Your task to perform on an android device: Open Yahoo.com Image 0: 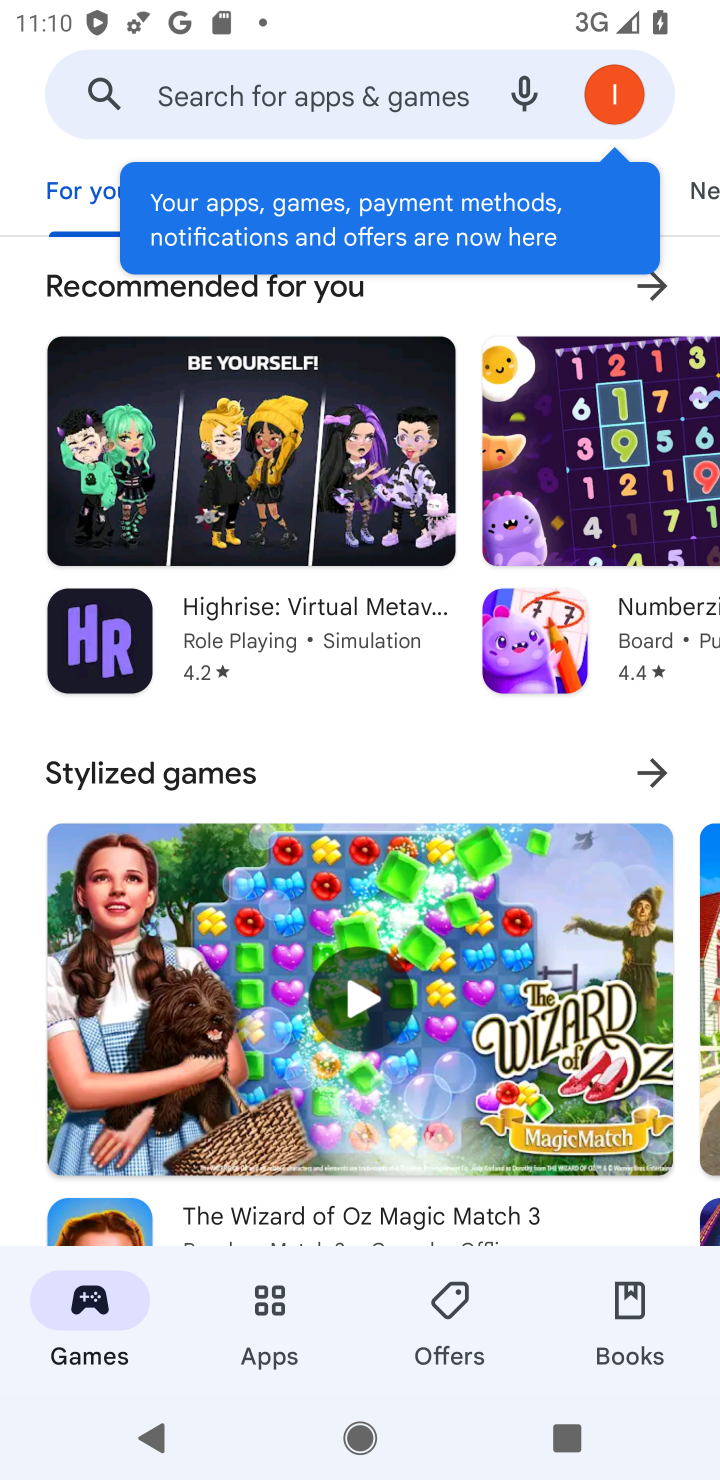
Step 0: press home button
Your task to perform on an android device: Open Yahoo.com Image 1: 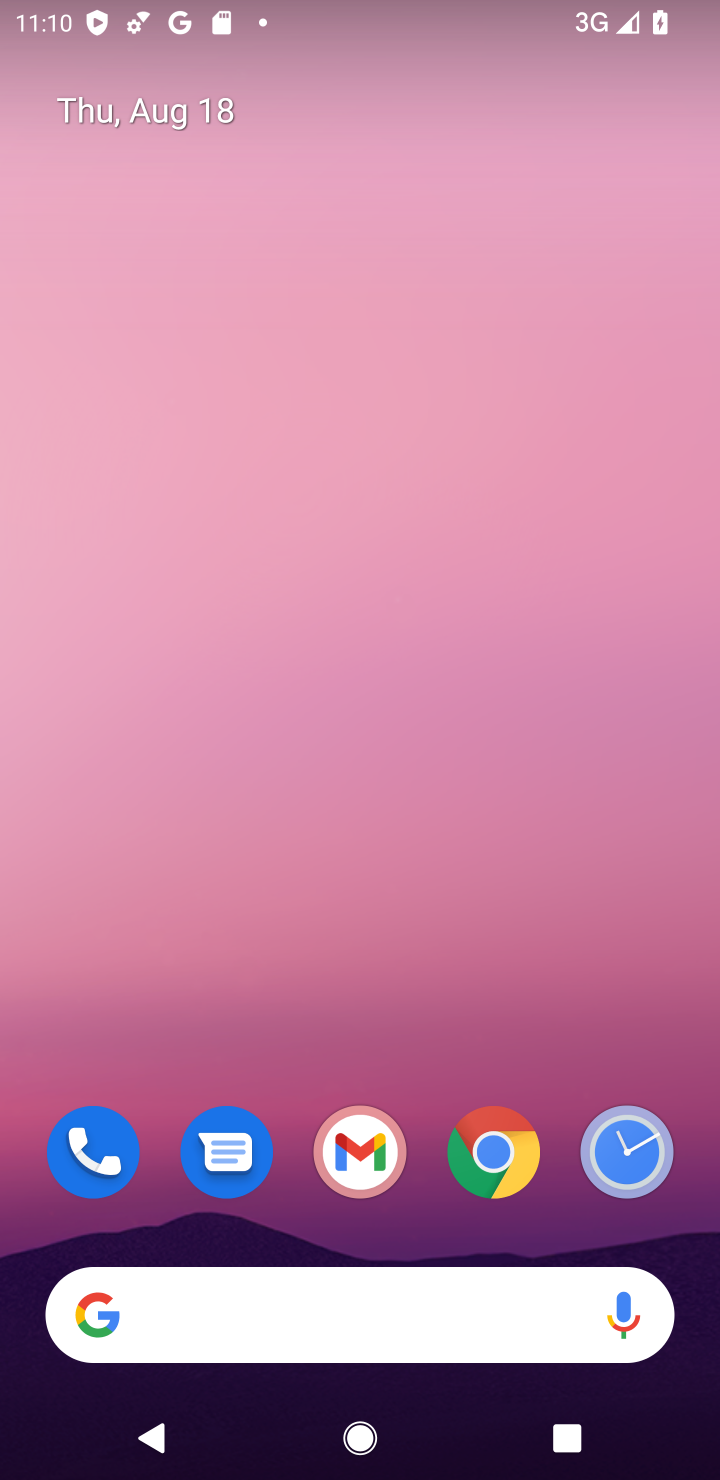
Step 1: click (408, 1322)
Your task to perform on an android device: Open Yahoo.com Image 2: 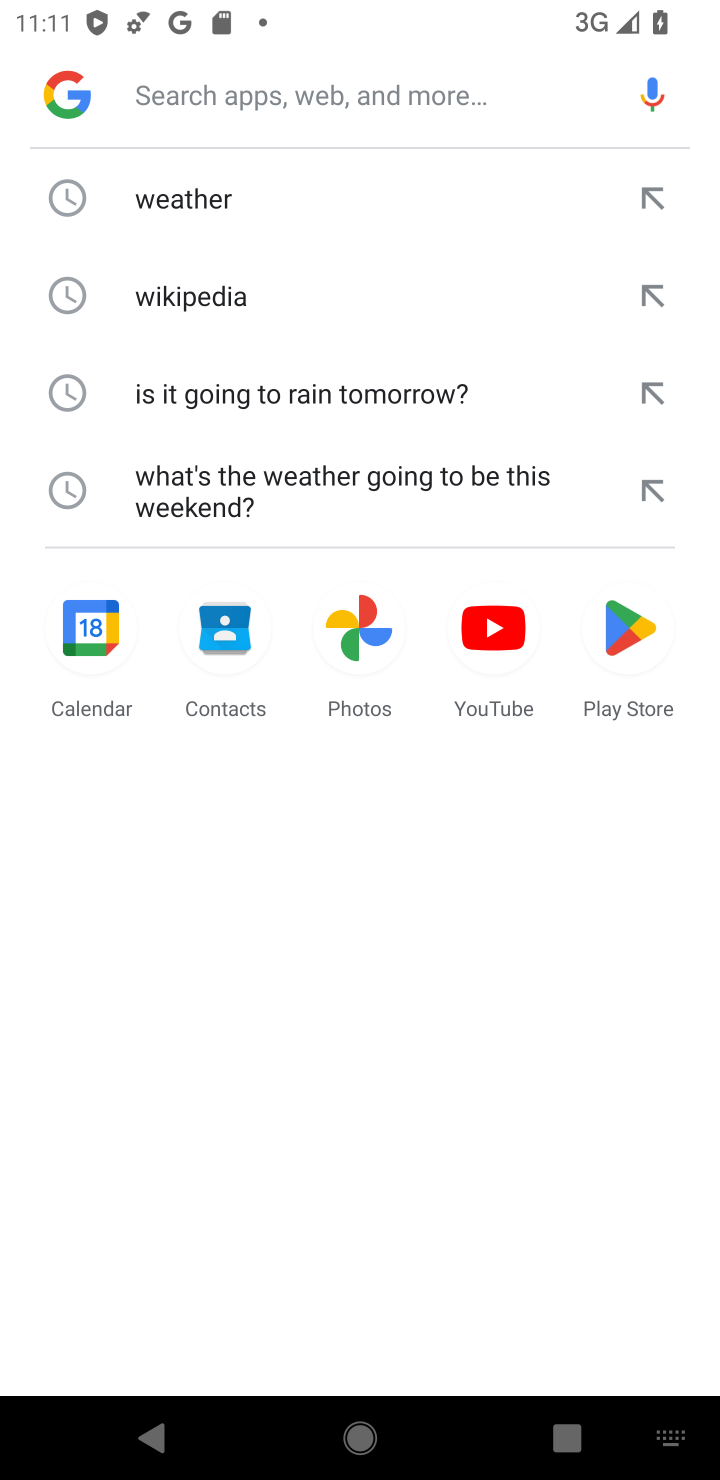
Step 2: type "yahoo.com"
Your task to perform on an android device: Open Yahoo.com Image 3: 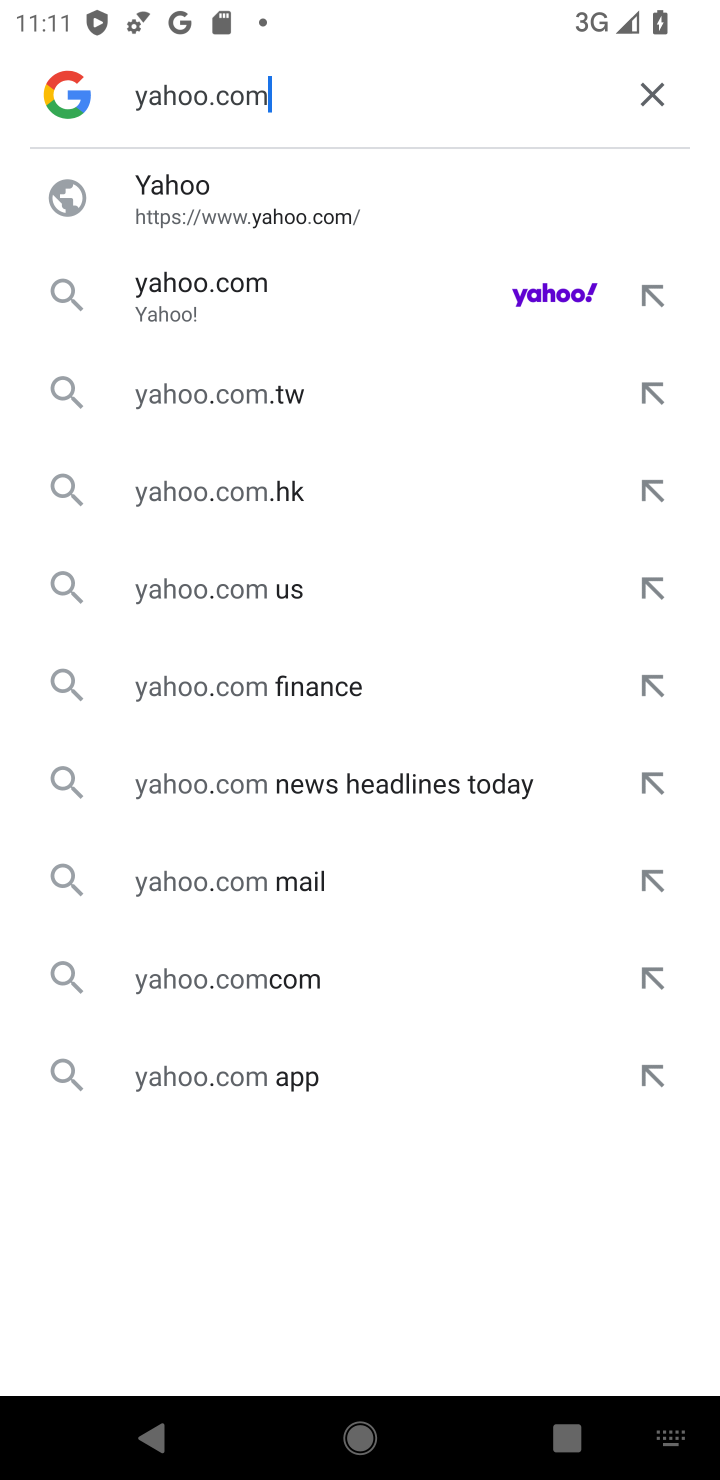
Step 3: click (447, 299)
Your task to perform on an android device: Open Yahoo.com Image 4: 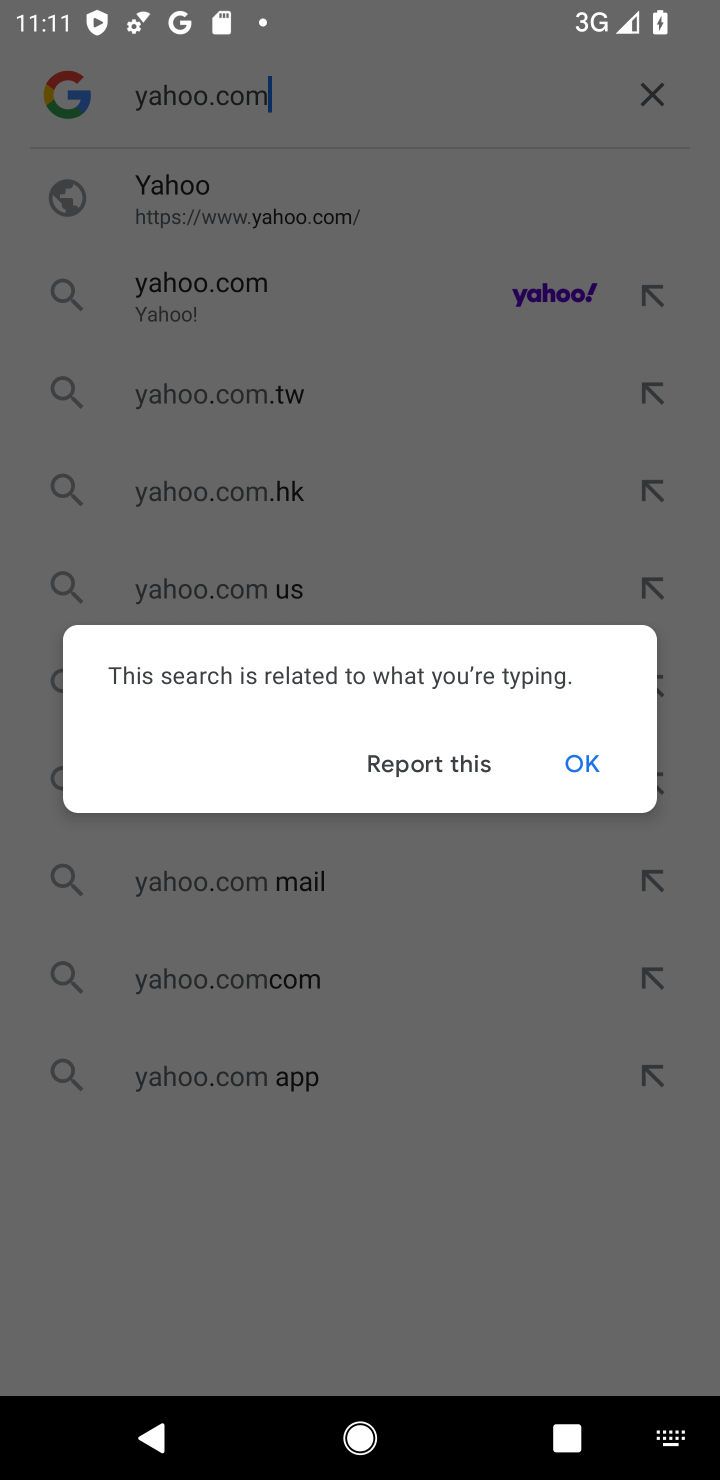
Step 4: click (588, 759)
Your task to perform on an android device: Open Yahoo.com Image 5: 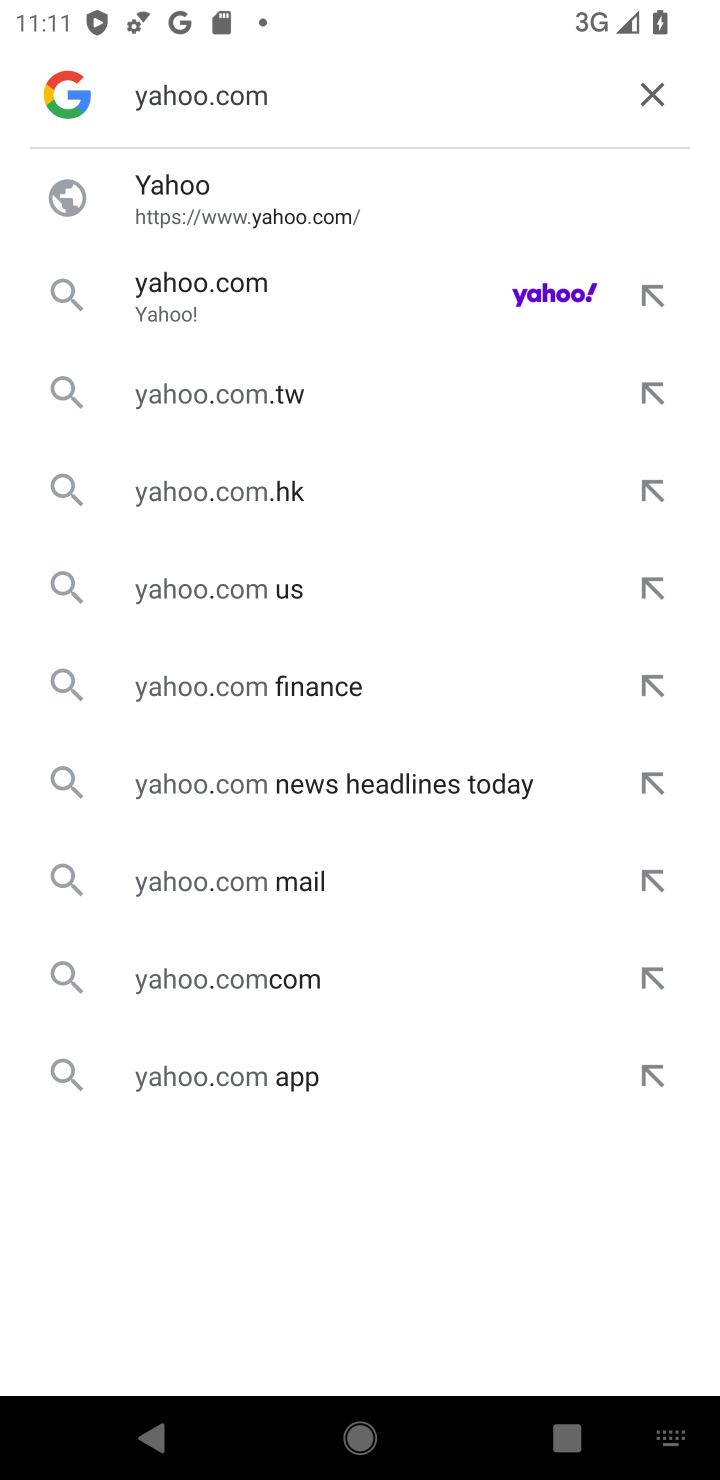
Step 5: click (660, 286)
Your task to perform on an android device: Open Yahoo.com Image 6: 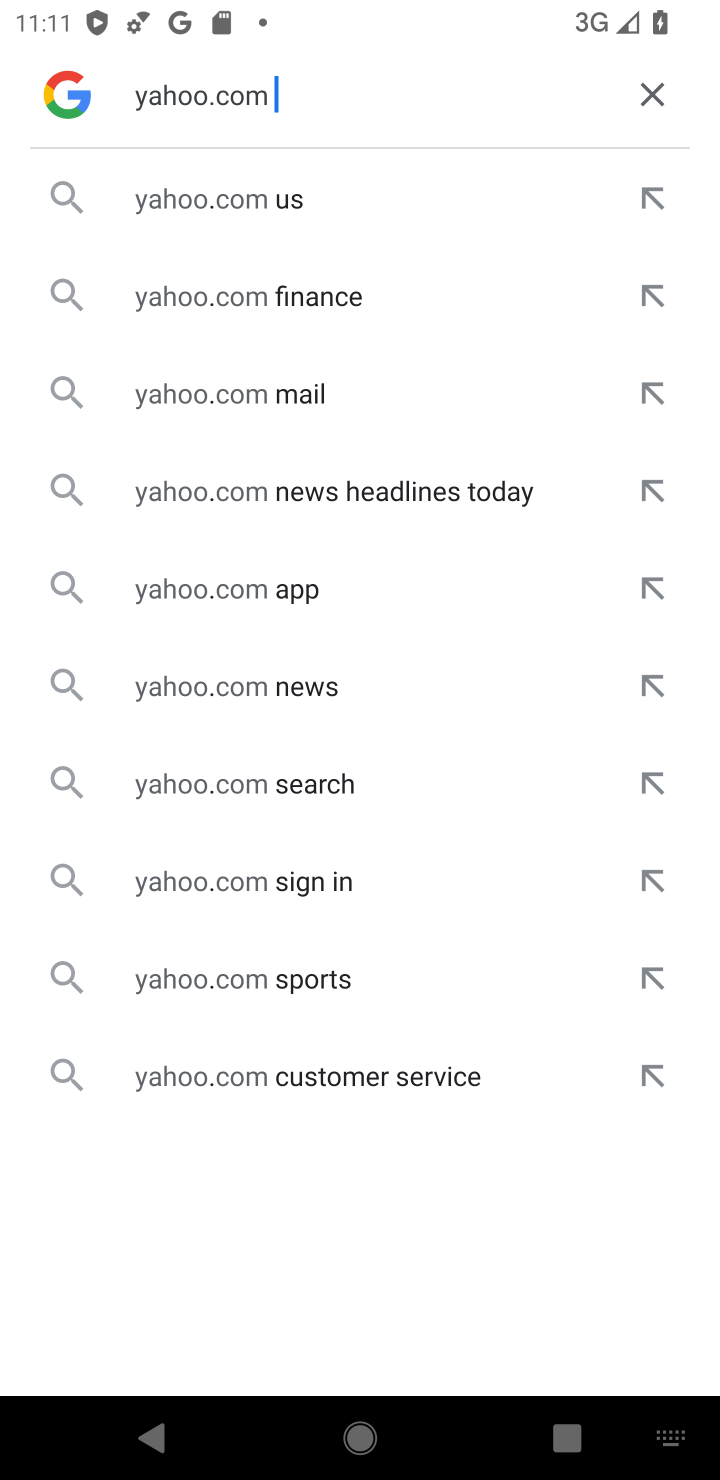
Step 6: click (244, 684)
Your task to perform on an android device: Open Yahoo.com Image 7: 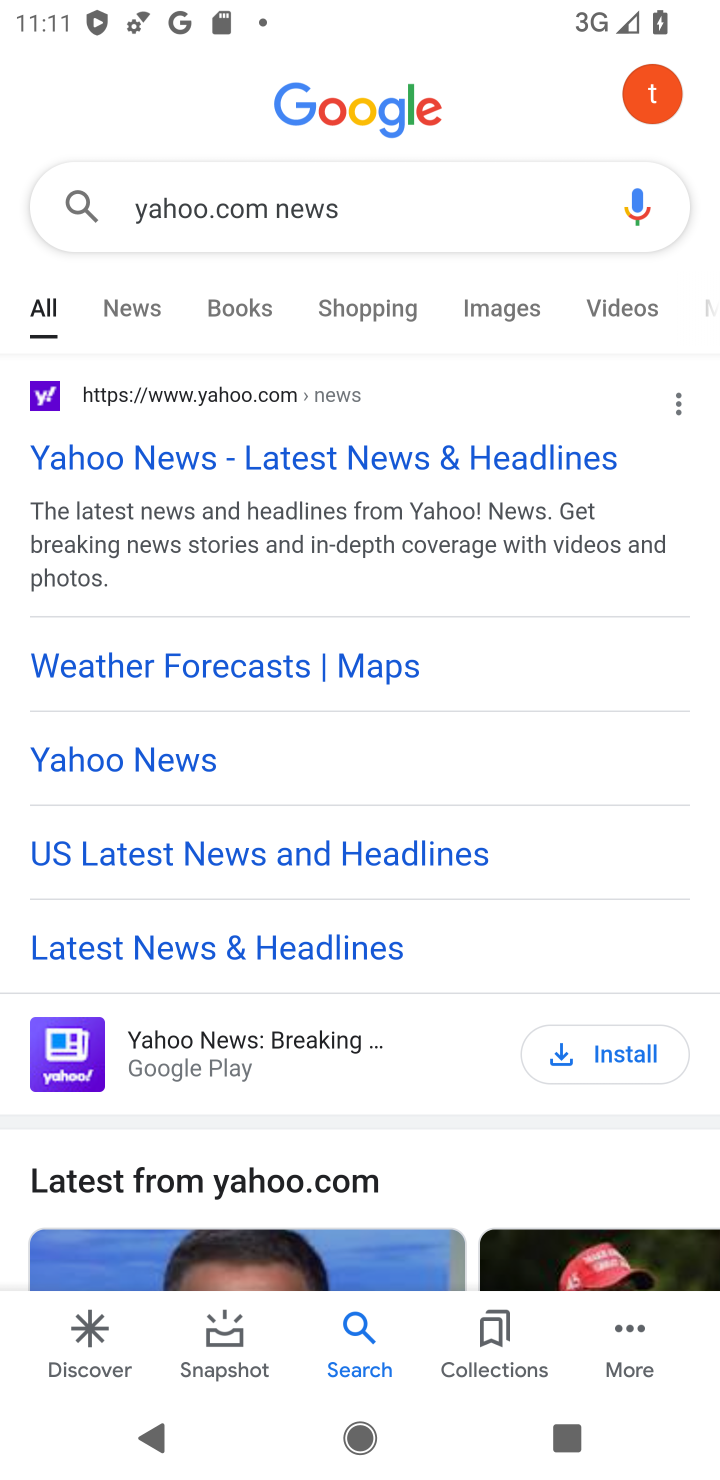
Step 7: click (198, 455)
Your task to perform on an android device: Open Yahoo.com Image 8: 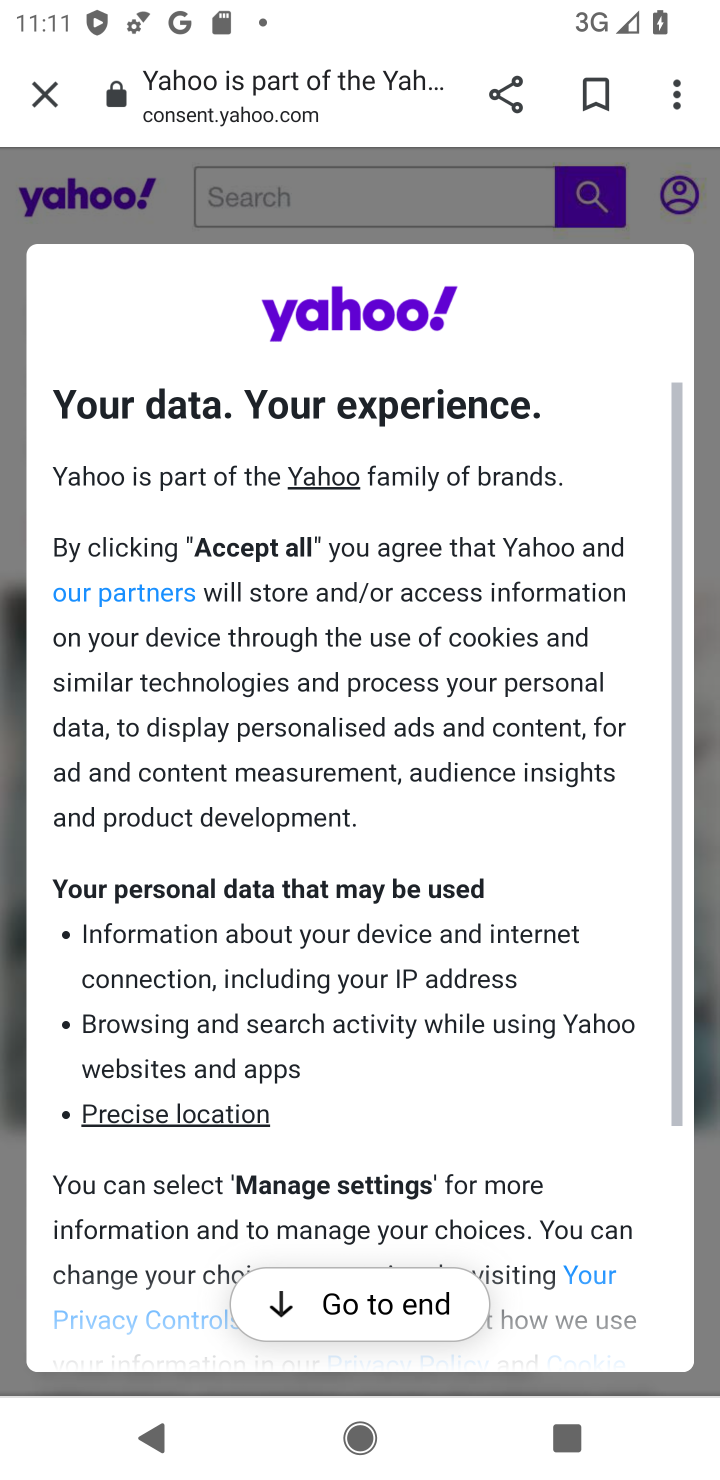
Step 8: click (445, 1306)
Your task to perform on an android device: Open Yahoo.com Image 9: 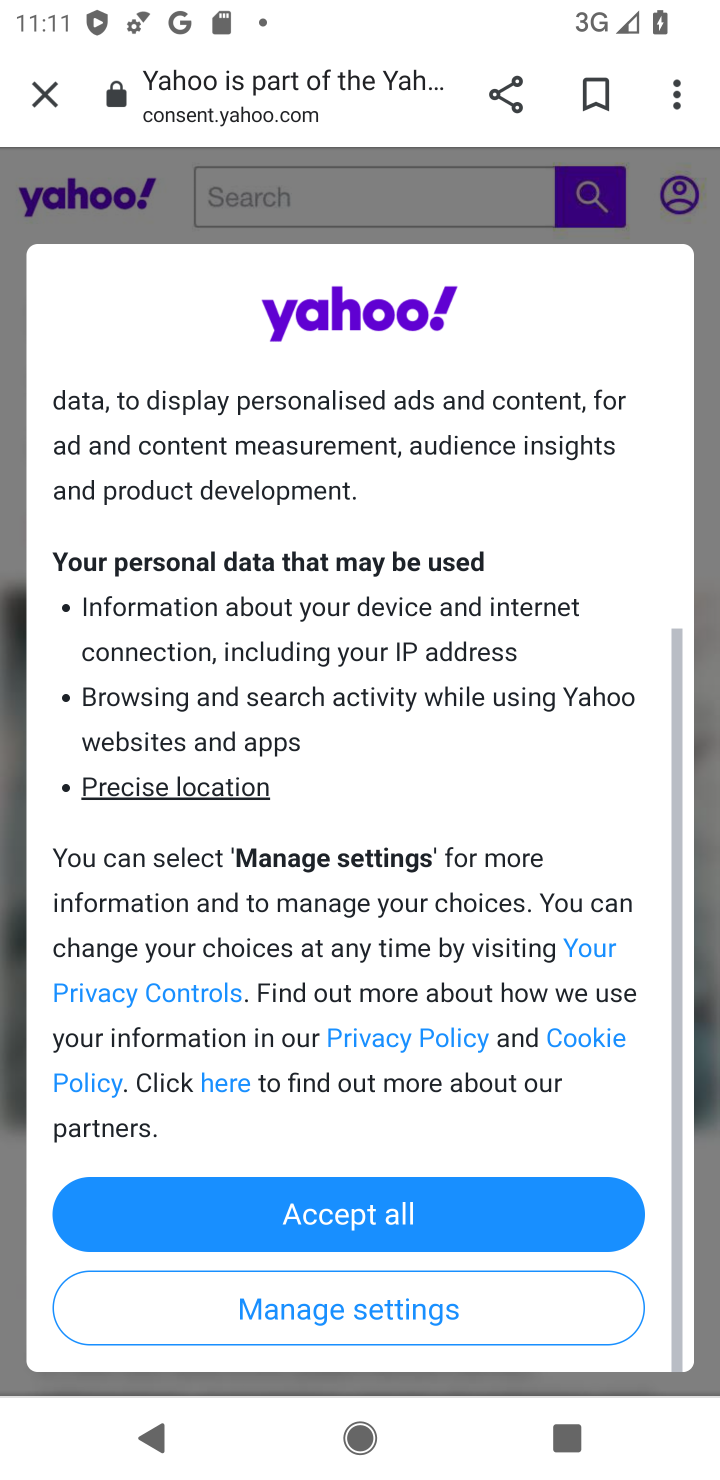
Step 9: click (480, 1211)
Your task to perform on an android device: Open Yahoo.com Image 10: 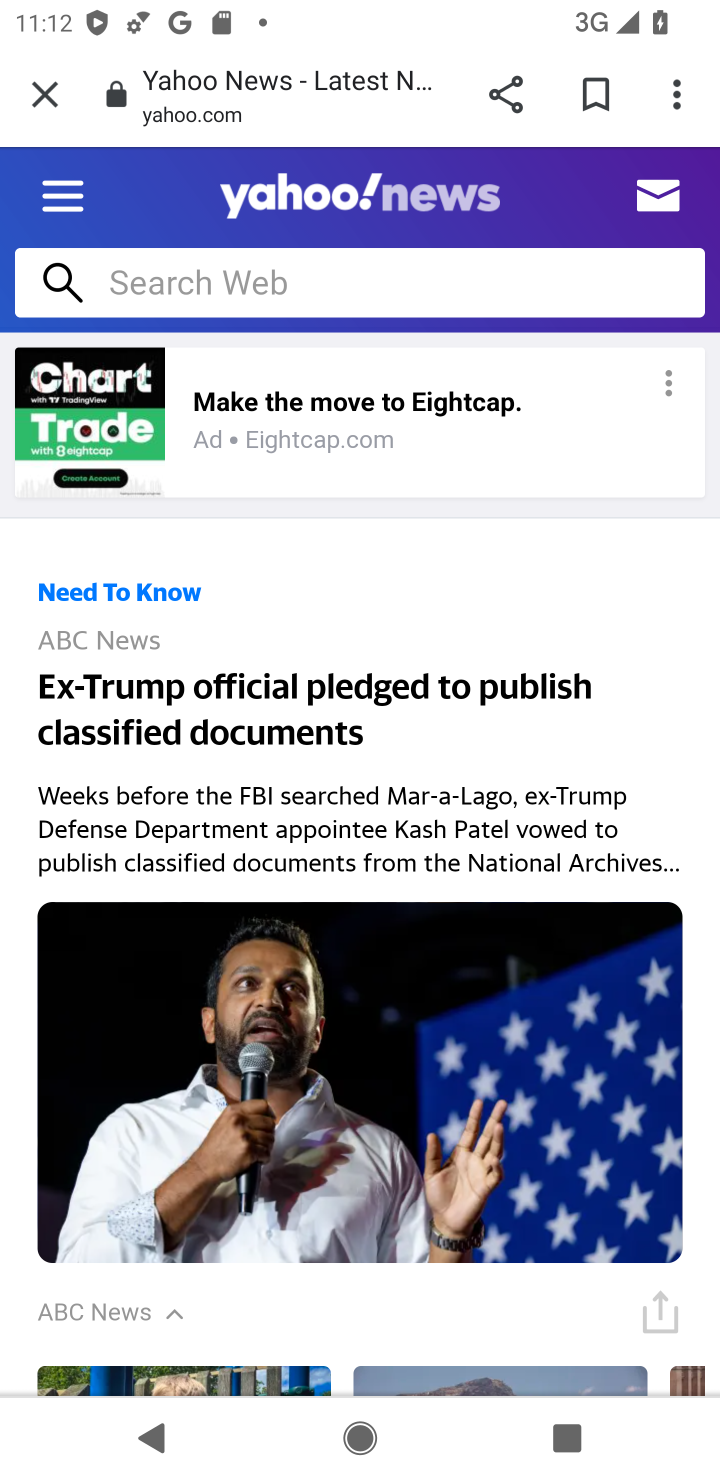
Step 10: task complete